Your task to perform on an android device: Search for seafood restaurants on Google Maps Image 0: 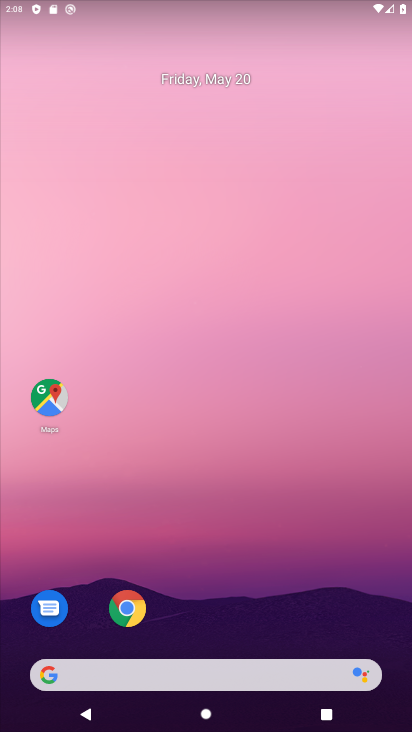
Step 0: click (53, 386)
Your task to perform on an android device: Search for seafood restaurants on Google Maps Image 1: 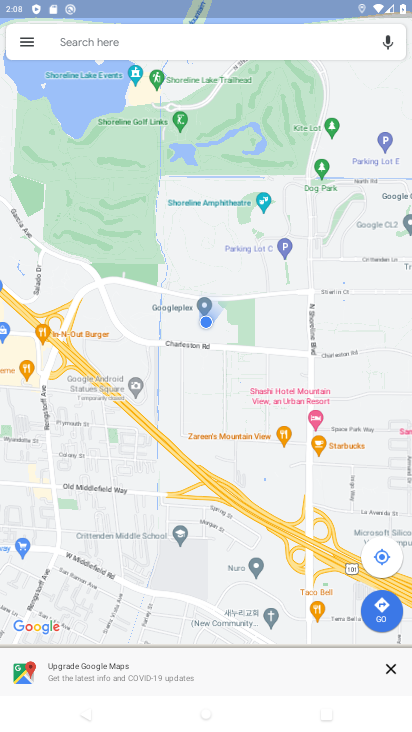
Step 1: click (112, 43)
Your task to perform on an android device: Search for seafood restaurants on Google Maps Image 2: 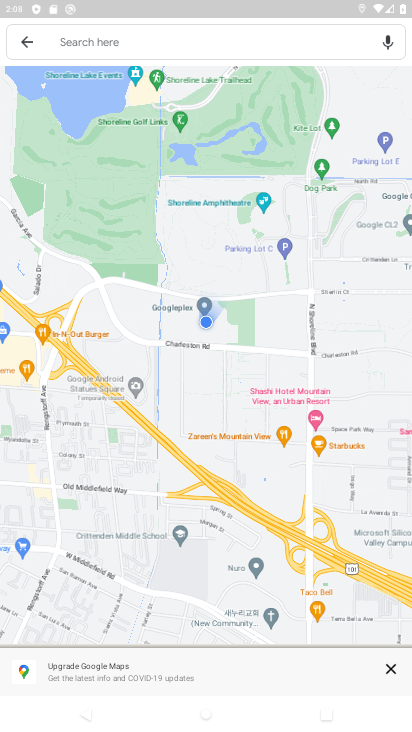
Step 2: click (66, 52)
Your task to perform on an android device: Search for seafood restaurants on Google Maps Image 3: 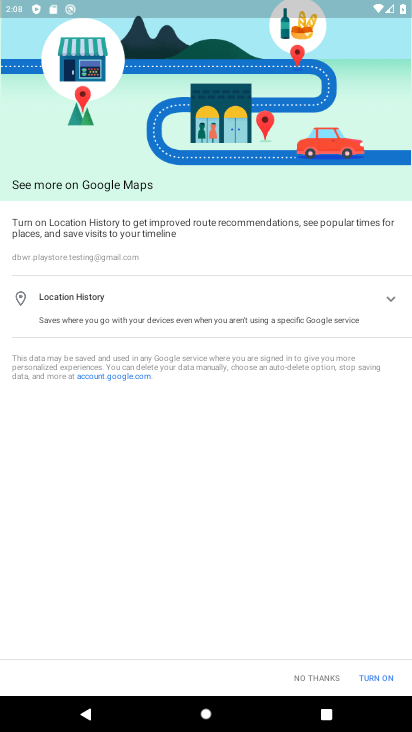
Step 3: click (294, 679)
Your task to perform on an android device: Search for seafood restaurants on Google Maps Image 4: 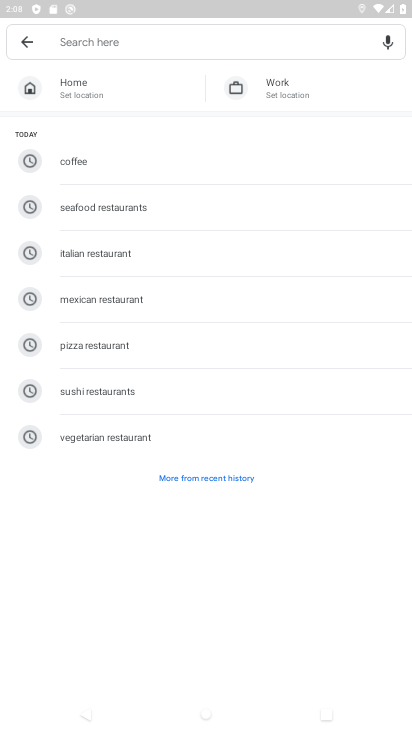
Step 4: click (91, 205)
Your task to perform on an android device: Search for seafood restaurants on Google Maps Image 5: 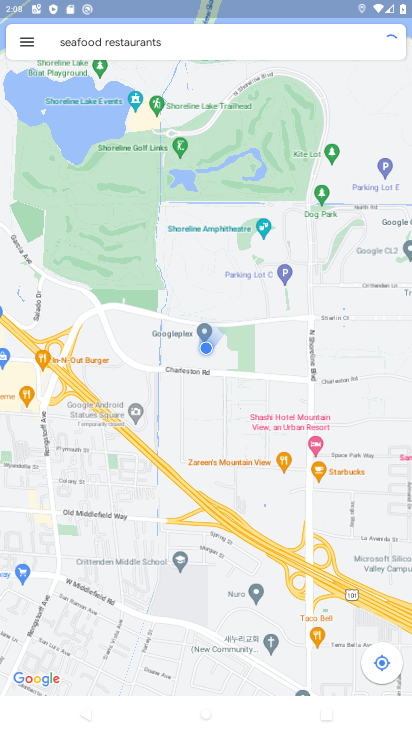
Step 5: task complete